Your task to perform on an android device: Show me recent news Image 0: 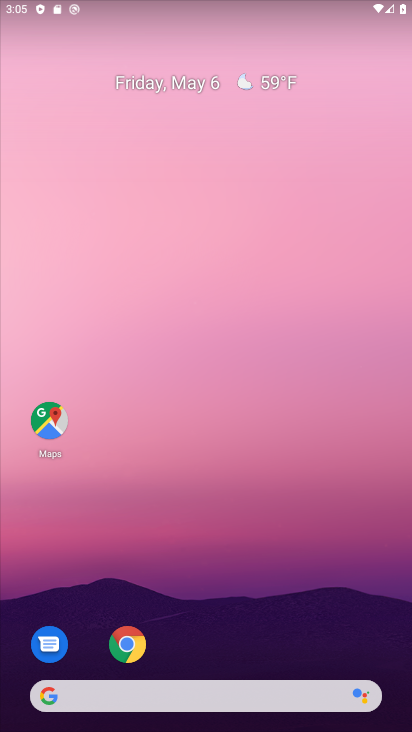
Step 0: drag from (215, 607) to (224, 42)
Your task to perform on an android device: Show me recent news Image 1: 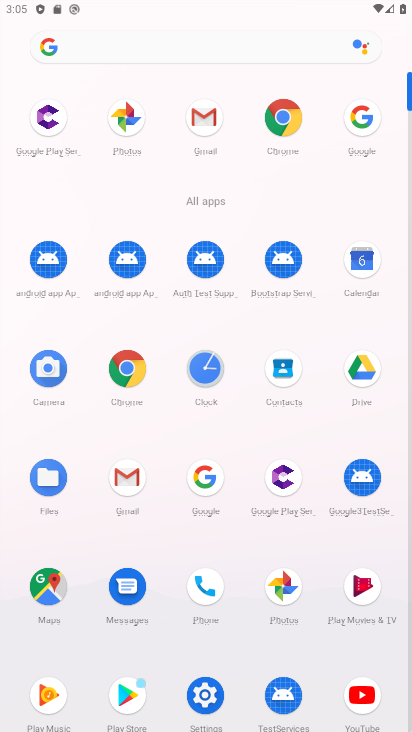
Step 1: click (199, 484)
Your task to perform on an android device: Show me recent news Image 2: 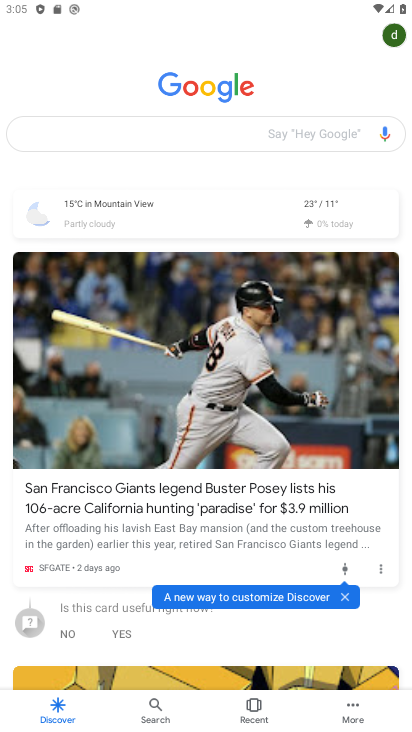
Step 2: click (166, 145)
Your task to perform on an android device: Show me recent news Image 3: 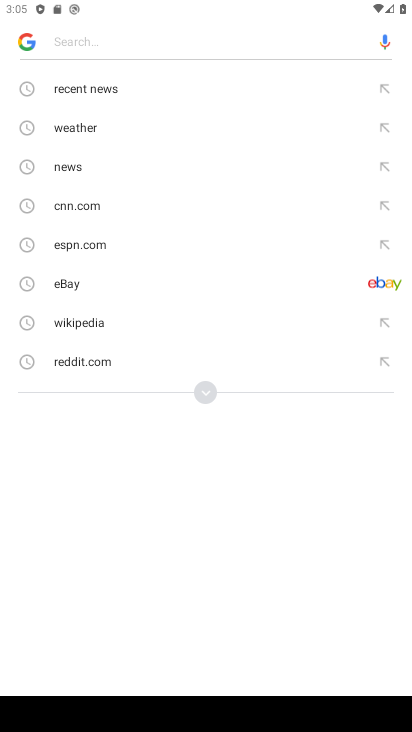
Step 3: click (86, 87)
Your task to perform on an android device: Show me recent news Image 4: 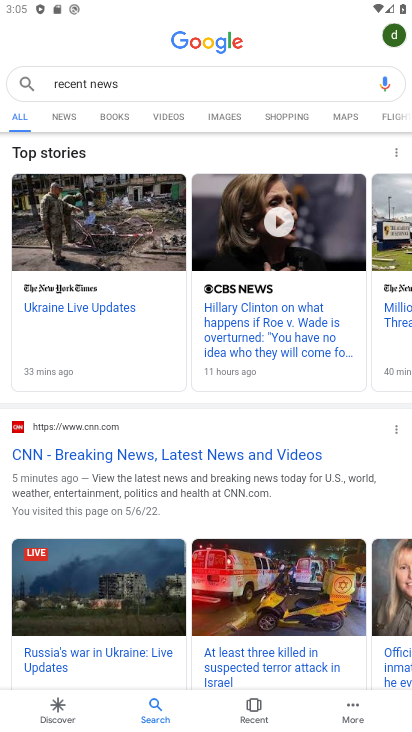
Step 4: task complete